Your task to perform on an android device: turn on showing notifications on the lock screen Image 0: 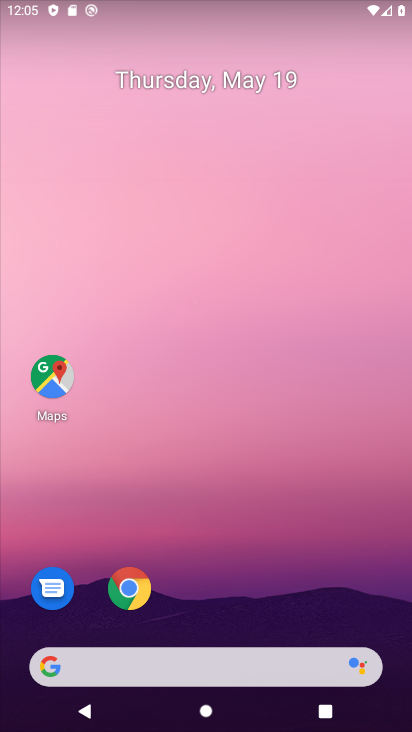
Step 0: drag from (243, 608) to (176, 25)
Your task to perform on an android device: turn on showing notifications on the lock screen Image 1: 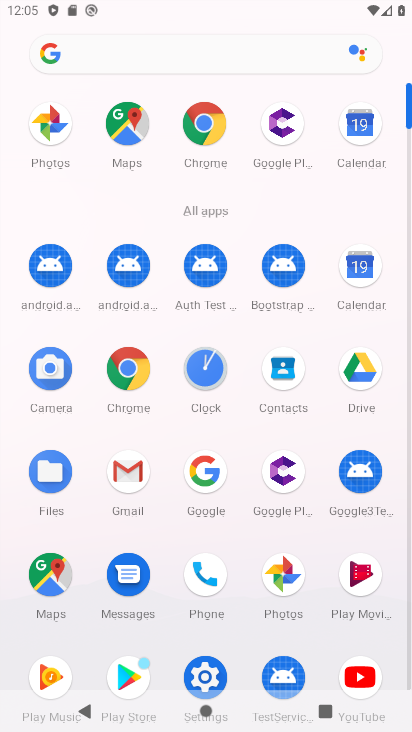
Step 1: click (199, 670)
Your task to perform on an android device: turn on showing notifications on the lock screen Image 2: 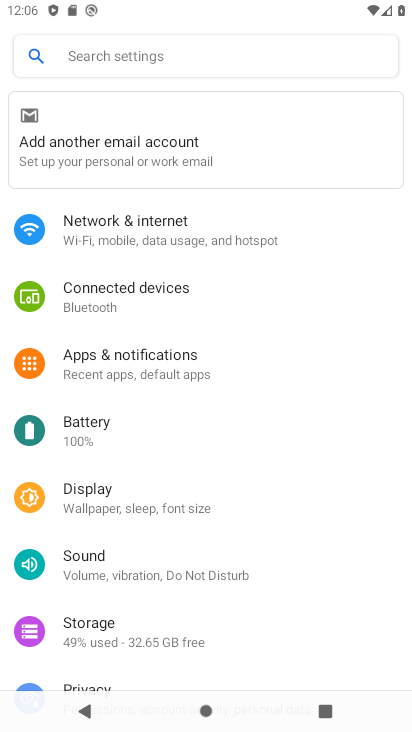
Step 2: click (236, 368)
Your task to perform on an android device: turn on showing notifications on the lock screen Image 3: 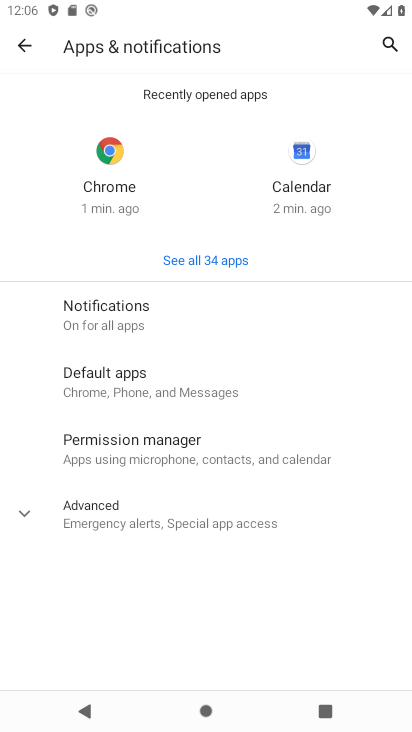
Step 3: click (223, 327)
Your task to perform on an android device: turn on showing notifications on the lock screen Image 4: 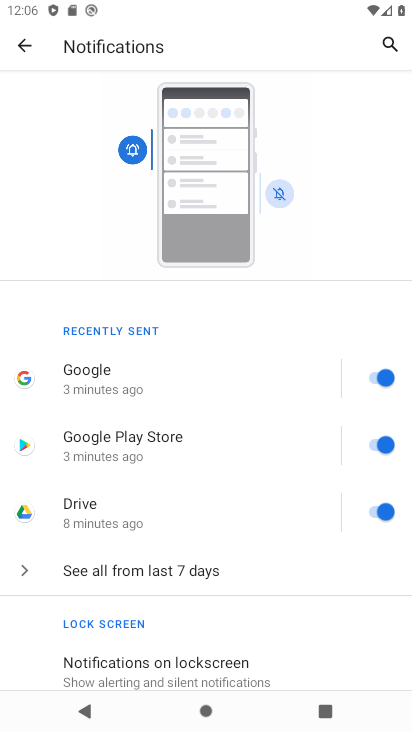
Step 4: click (237, 678)
Your task to perform on an android device: turn on showing notifications on the lock screen Image 5: 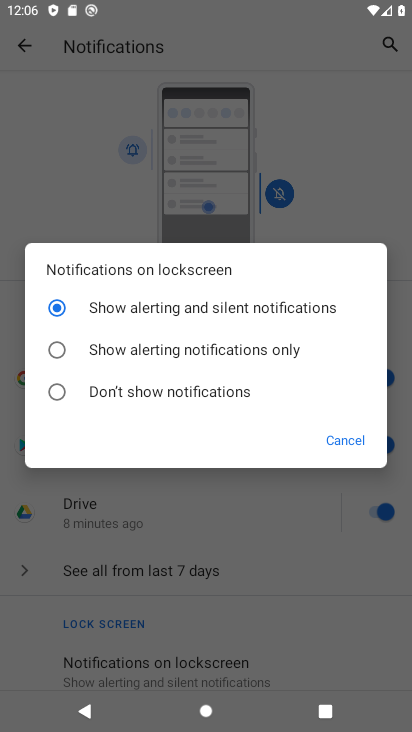
Step 5: task complete